Your task to perform on an android device: toggle notifications settings in the gmail app Image 0: 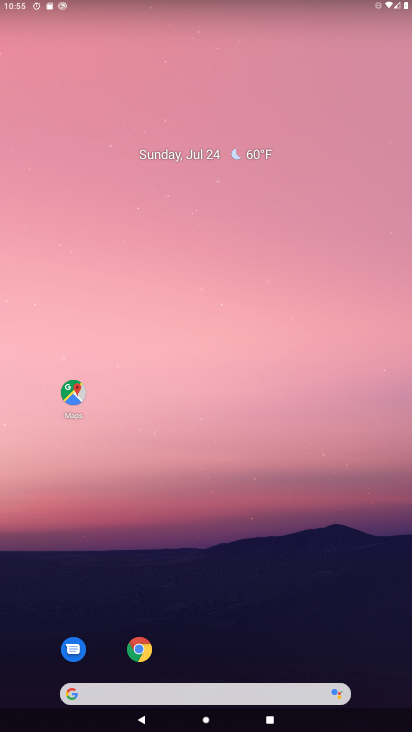
Step 0: drag from (286, 606) to (309, 25)
Your task to perform on an android device: toggle notifications settings in the gmail app Image 1: 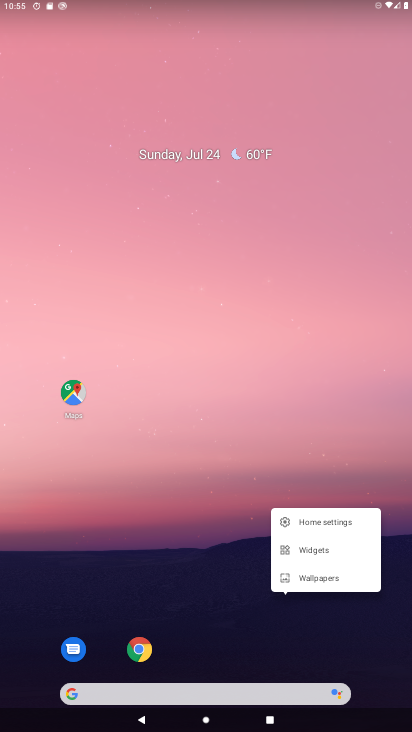
Step 1: click (141, 356)
Your task to perform on an android device: toggle notifications settings in the gmail app Image 2: 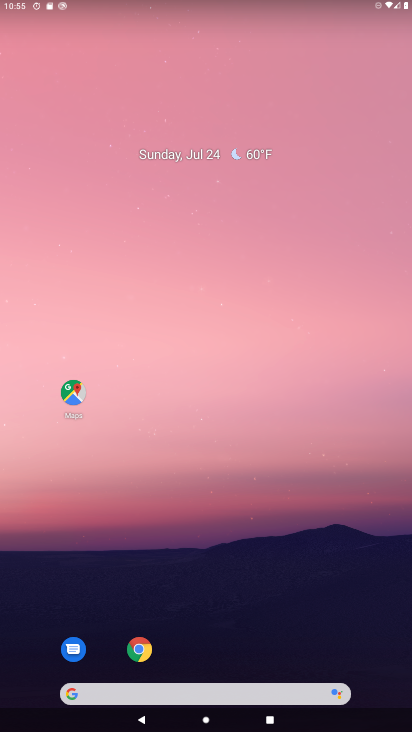
Step 2: drag from (251, 626) to (263, 6)
Your task to perform on an android device: toggle notifications settings in the gmail app Image 3: 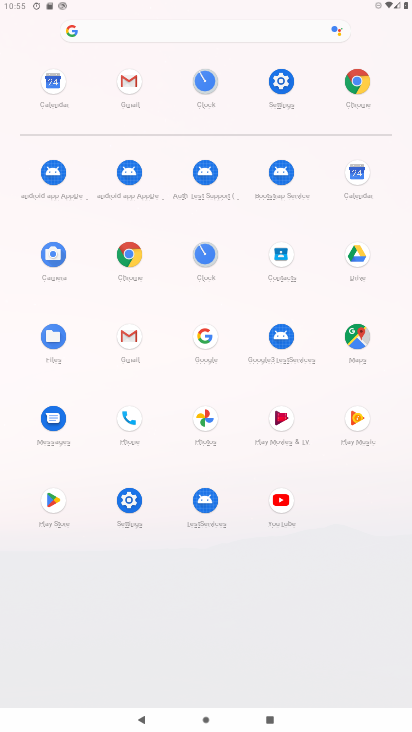
Step 3: click (125, 84)
Your task to perform on an android device: toggle notifications settings in the gmail app Image 4: 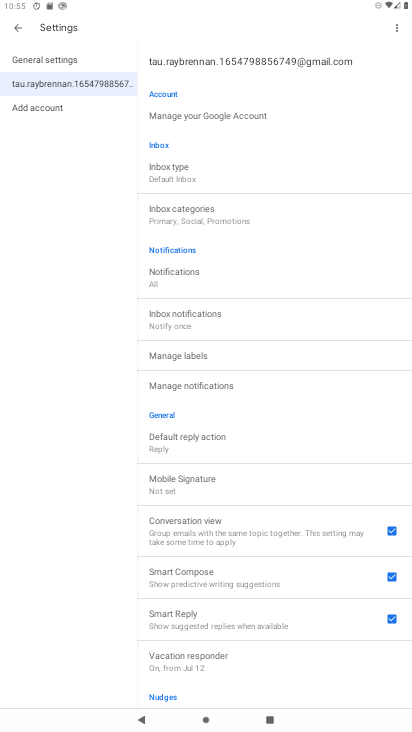
Step 4: click (189, 381)
Your task to perform on an android device: toggle notifications settings in the gmail app Image 5: 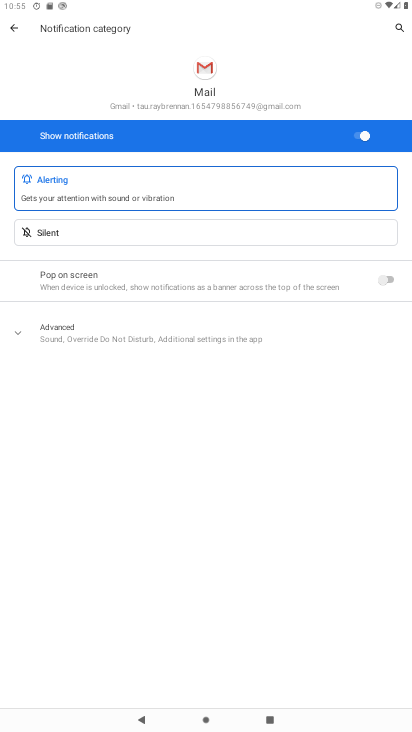
Step 5: click (341, 134)
Your task to perform on an android device: toggle notifications settings in the gmail app Image 6: 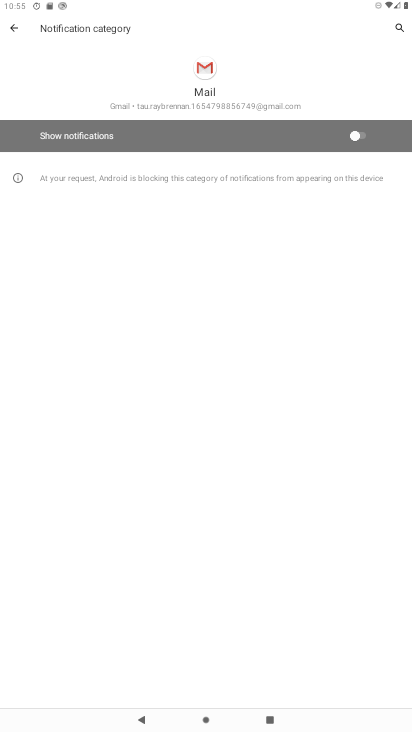
Step 6: task complete